Your task to perform on an android device: stop showing notifications on the lock screen Image 0: 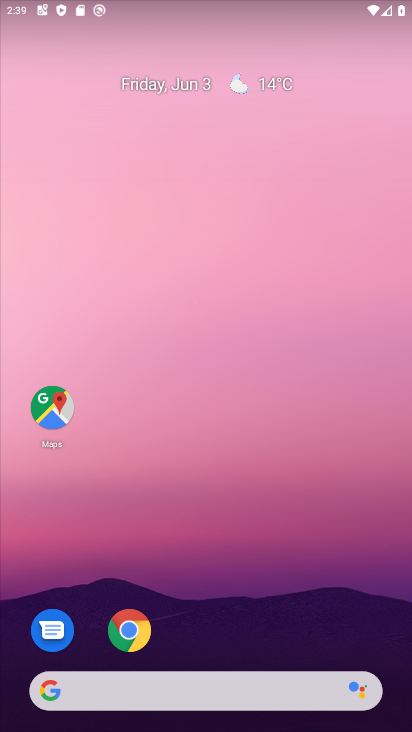
Step 0: drag from (269, 630) to (192, 194)
Your task to perform on an android device: stop showing notifications on the lock screen Image 1: 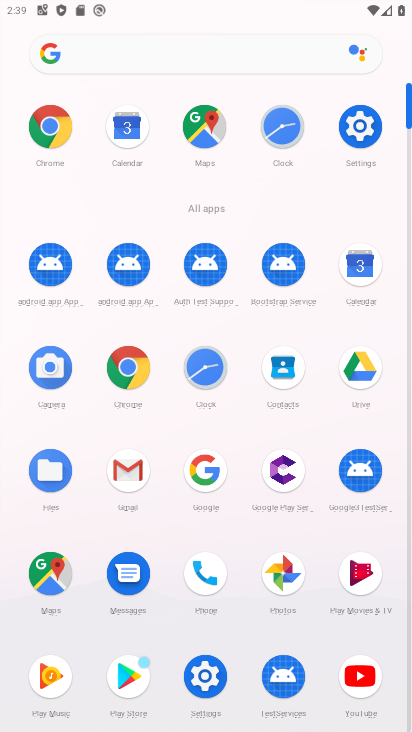
Step 1: click (354, 140)
Your task to perform on an android device: stop showing notifications on the lock screen Image 2: 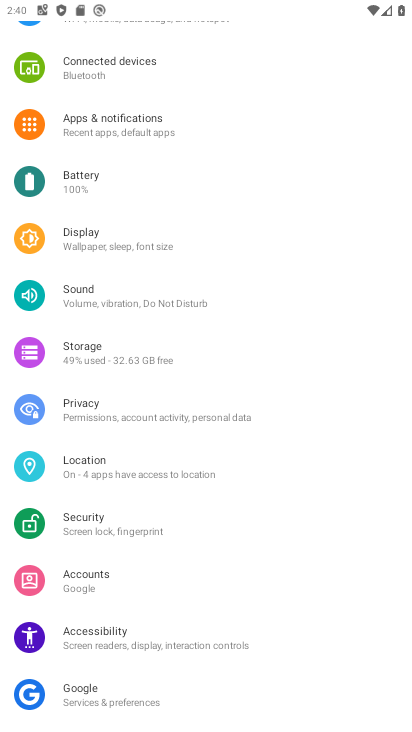
Step 2: click (130, 132)
Your task to perform on an android device: stop showing notifications on the lock screen Image 3: 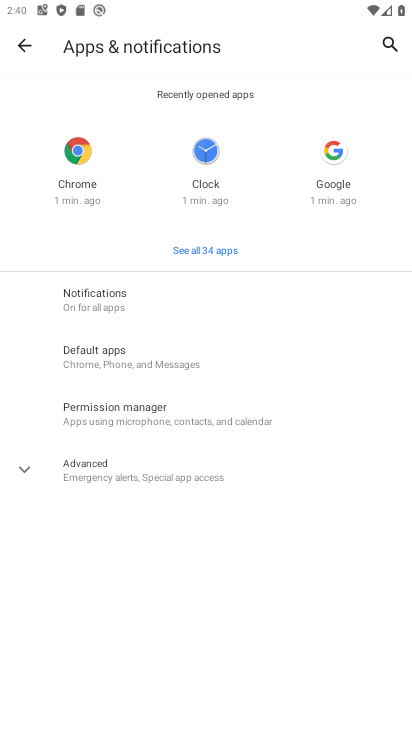
Step 3: click (174, 313)
Your task to perform on an android device: stop showing notifications on the lock screen Image 4: 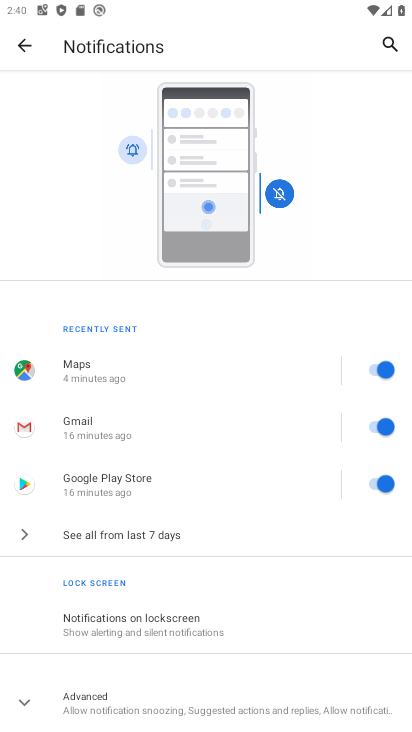
Step 4: drag from (296, 644) to (254, 364)
Your task to perform on an android device: stop showing notifications on the lock screen Image 5: 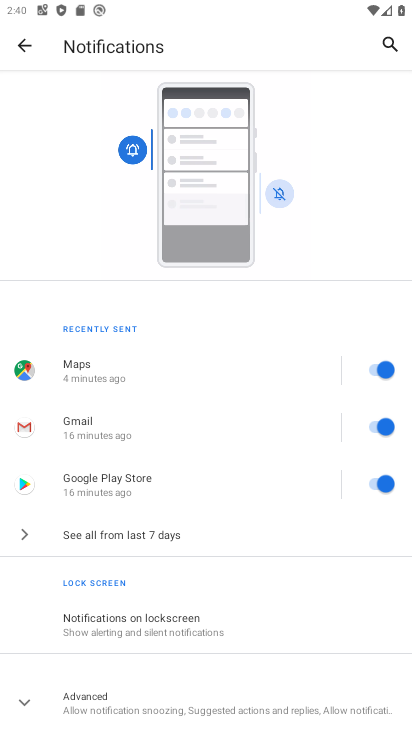
Step 5: click (240, 630)
Your task to perform on an android device: stop showing notifications on the lock screen Image 6: 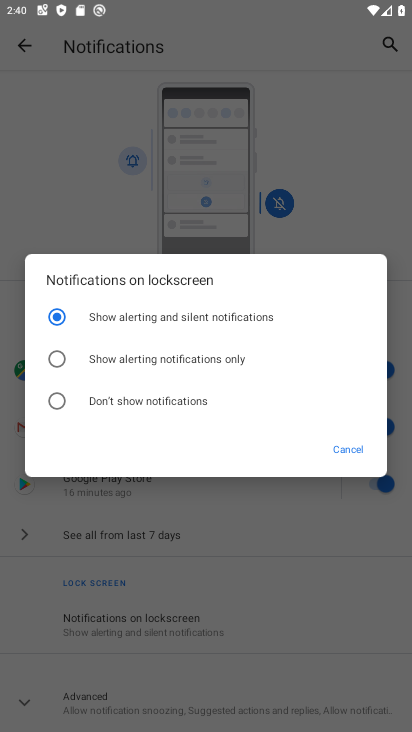
Step 6: click (170, 422)
Your task to perform on an android device: stop showing notifications on the lock screen Image 7: 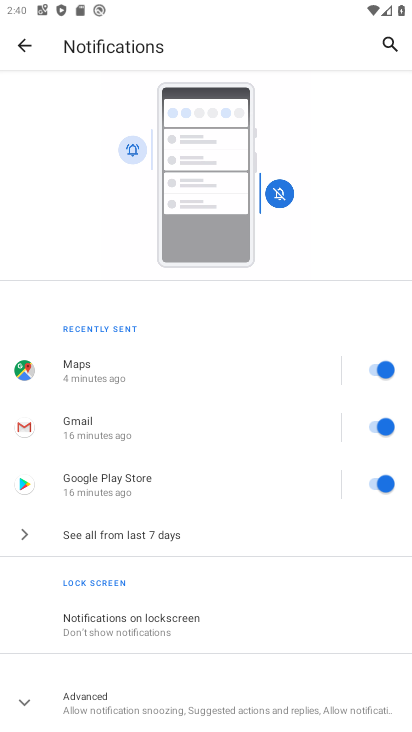
Step 7: task complete